Your task to perform on an android device: turn off translation in the chrome app Image 0: 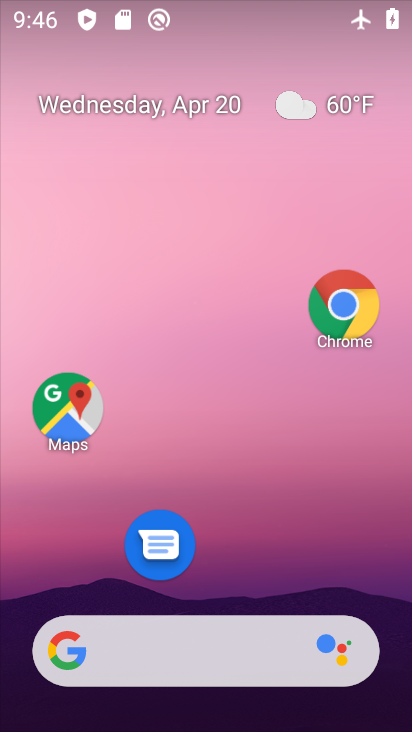
Step 0: drag from (247, 569) to (320, 24)
Your task to perform on an android device: turn off translation in the chrome app Image 1: 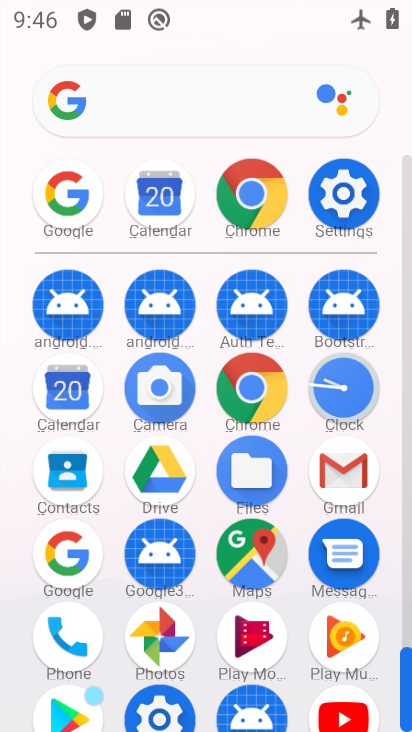
Step 1: click (267, 205)
Your task to perform on an android device: turn off translation in the chrome app Image 2: 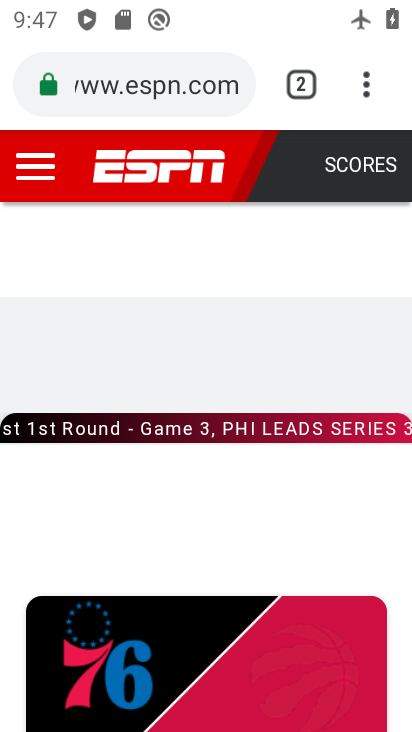
Step 2: click (362, 96)
Your task to perform on an android device: turn off translation in the chrome app Image 3: 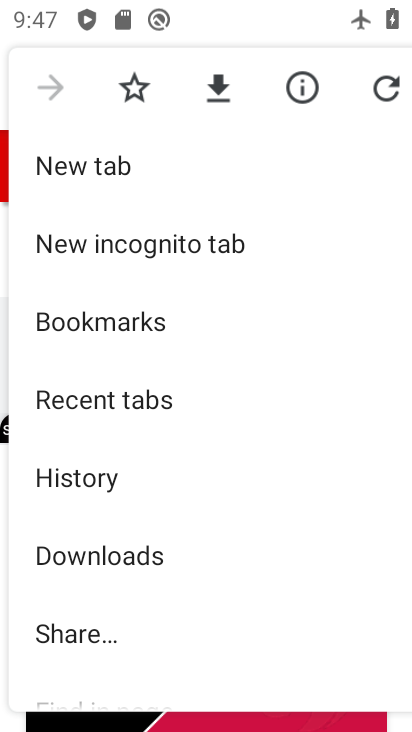
Step 3: task complete